Your task to perform on an android device: turn off location history Image 0: 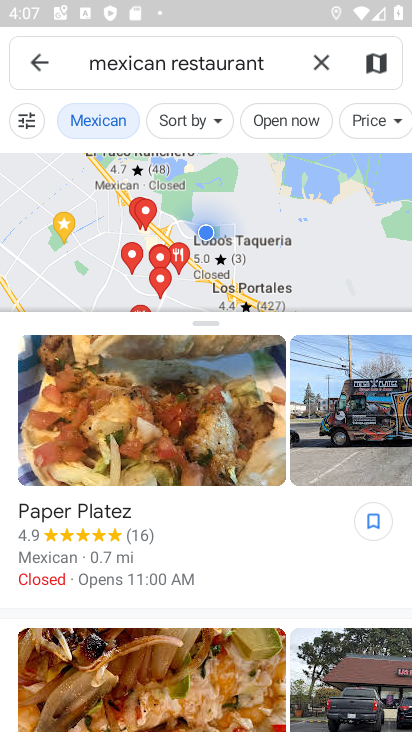
Step 0: press home button
Your task to perform on an android device: turn off location history Image 1: 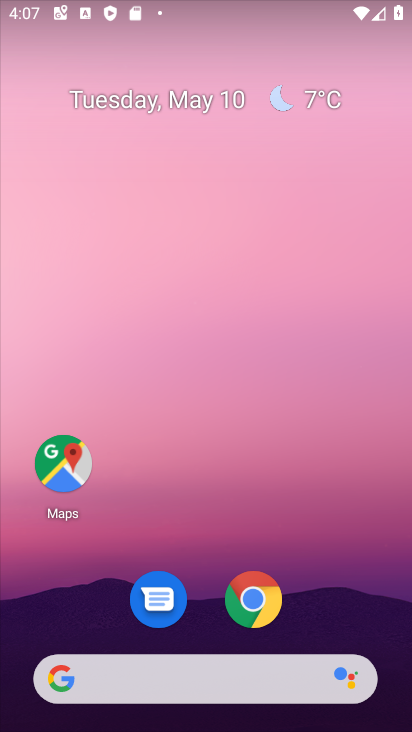
Step 1: drag from (233, 667) to (233, 88)
Your task to perform on an android device: turn off location history Image 2: 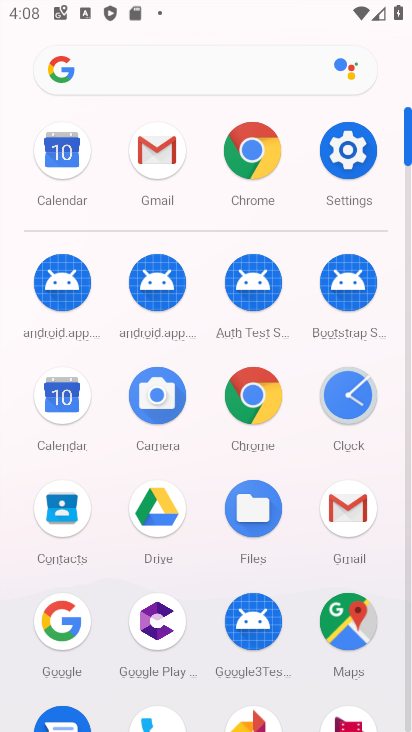
Step 2: click (359, 161)
Your task to perform on an android device: turn off location history Image 3: 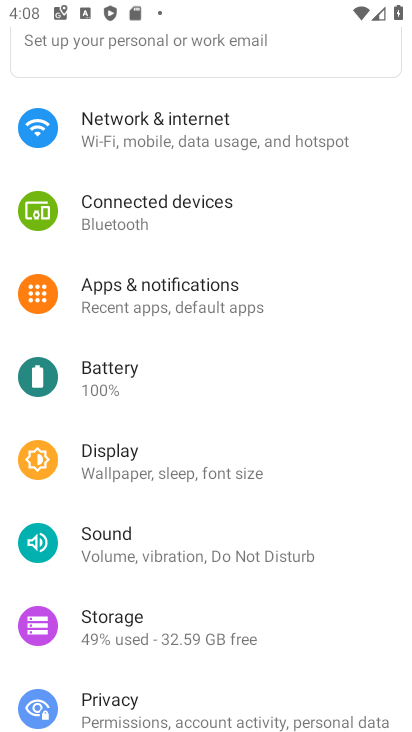
Step 3: drag from (207, 609) to (254, 303)
Your task to perform on an android device: turn off location history Image 4: 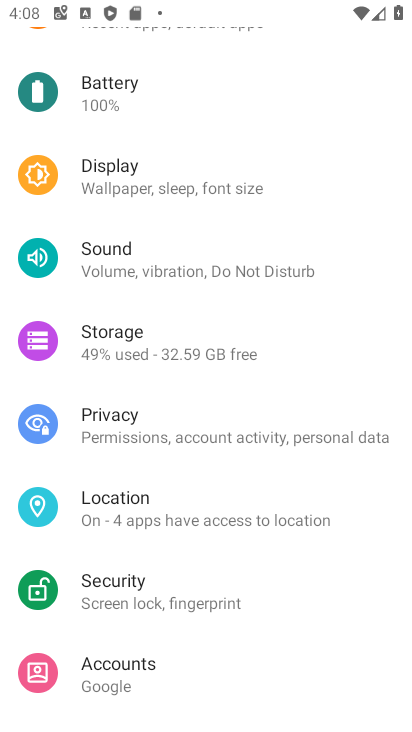
Step 4: click (224, 524)
Your task to perform on an android device: turn off location history Image 5: 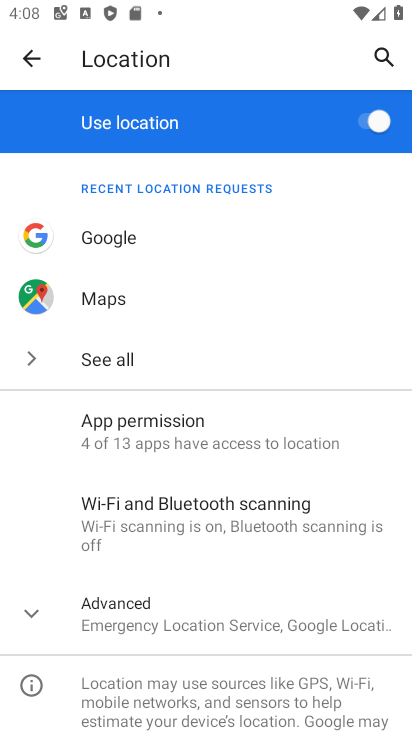
Step 5: click (258, 629)
Your task to perform on an android device: turn off location history Image 6: 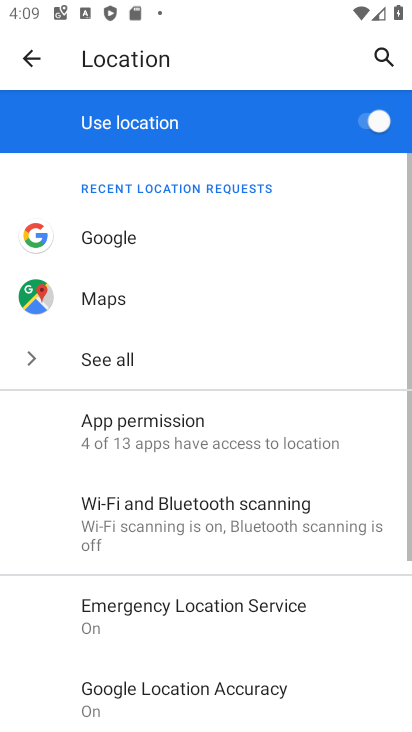
Step 6: drag from (257, 648) to (275, 305)
Your task to perform on an android device: turn off location history Image 7: 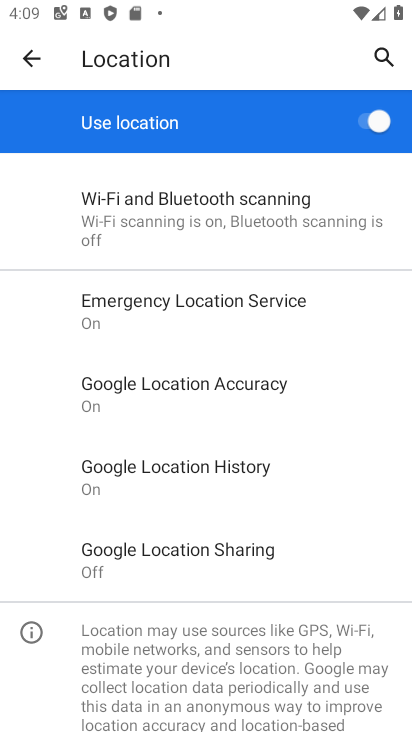
Step 7: click (215, 486)
Your task to perform on an android device: turn off location history Image 8: 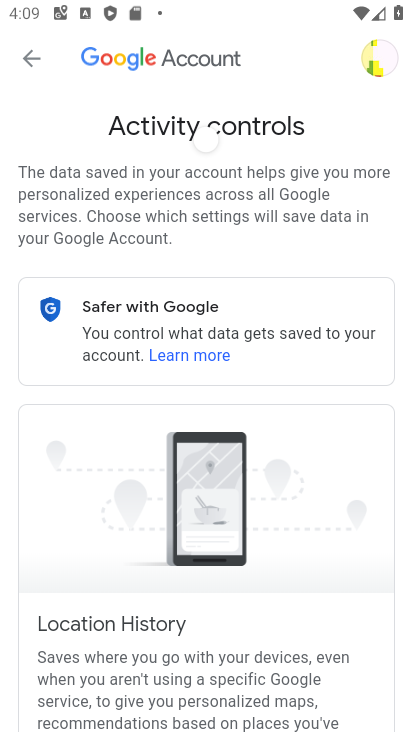
Step 8: task complete